Your task to perform on an android device: Turn on the flashlight Image 0: 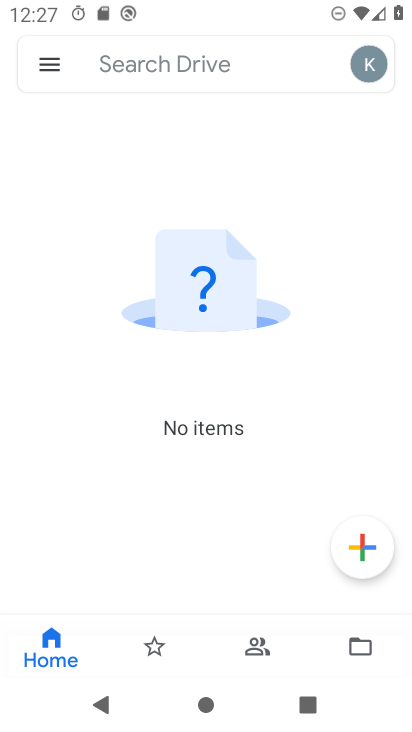
Step 0: click (400, 621)
Your task to perform on an android device: Turn on the flashlight Image 1: 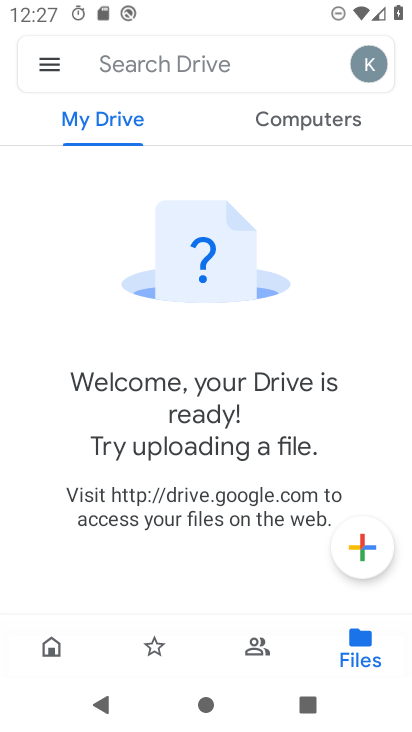
Step 1: press home button
Your task to perform on an android device: Turn on the flashlight Image 2: 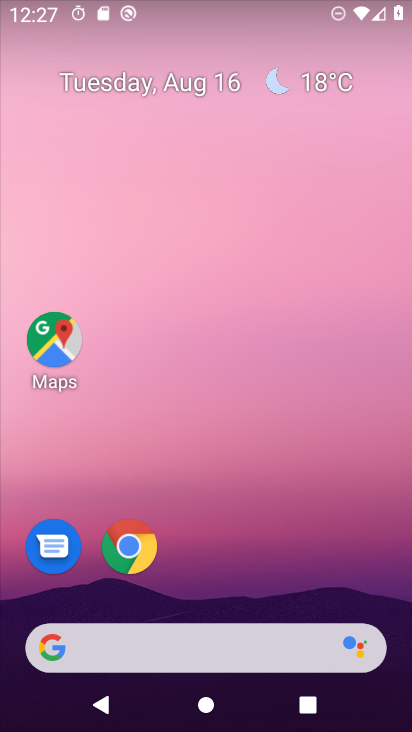
Step 2: drag from (236, 610) to (186, 81)
Your task to perform on an android device: Turn on the flashlight Image 3: 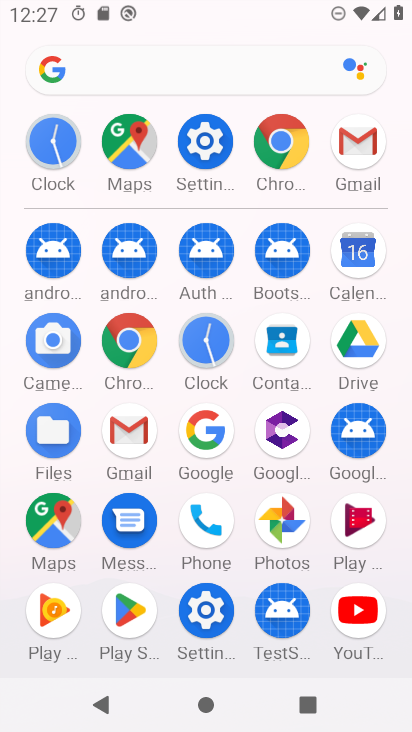
Step 3: click (217, 142)
Your task to perform on an android device: Turn on the flashlight Image 4: 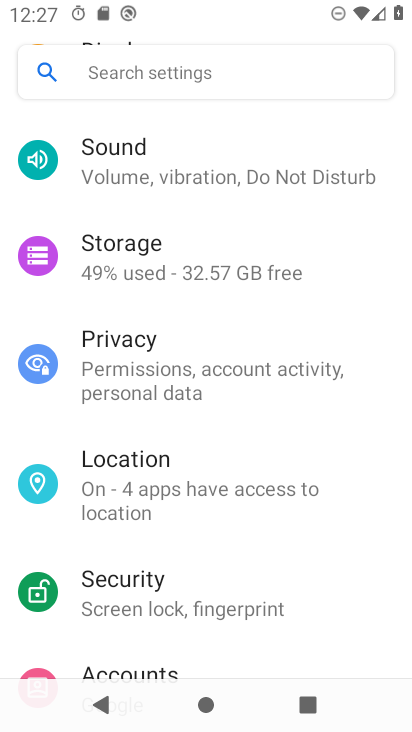
Step 4: task complete